Your task to perform on an android device: delete location history Image 0: 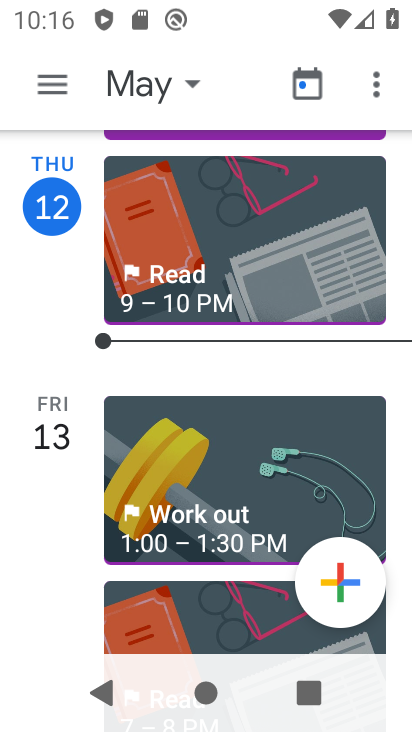
Step 0: press back button
Your task to perform on an android device: delete location history Image 1: 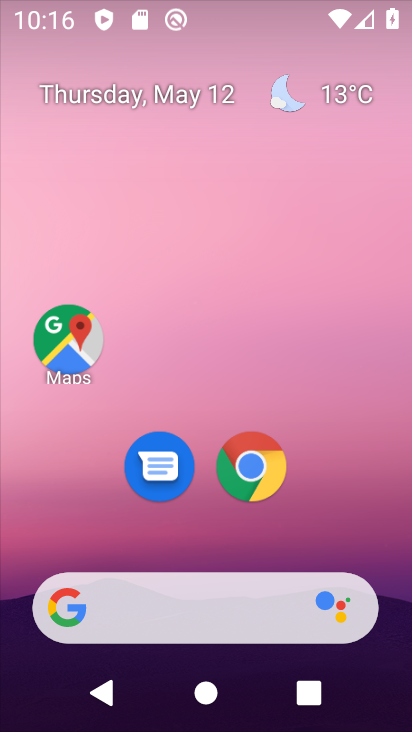
Step 1: click (41, 325)
Your task to perform on an android device: delete location history Image 2: 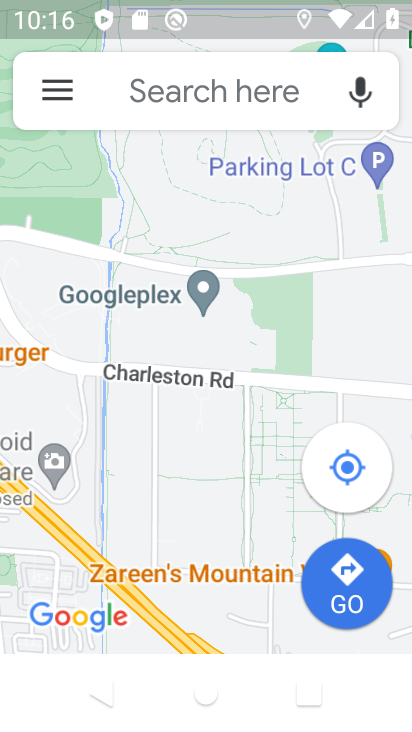
Step 2: click (49, 83)
Your task to perform on an android device: delete location history Image 3: 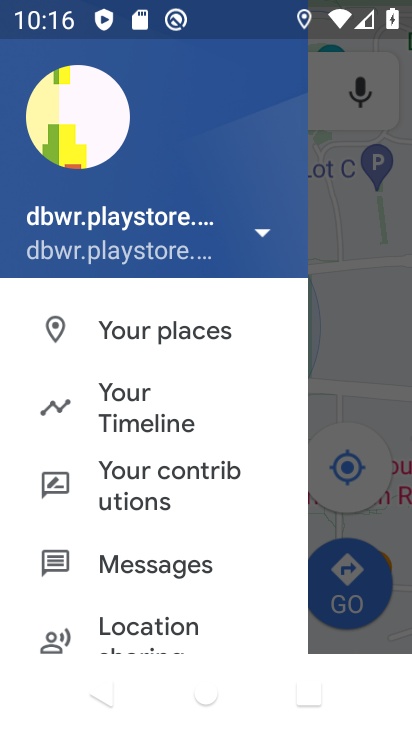
Step 3: click (139, 404)
Your task to perform on an android device: delete location history Image 4: 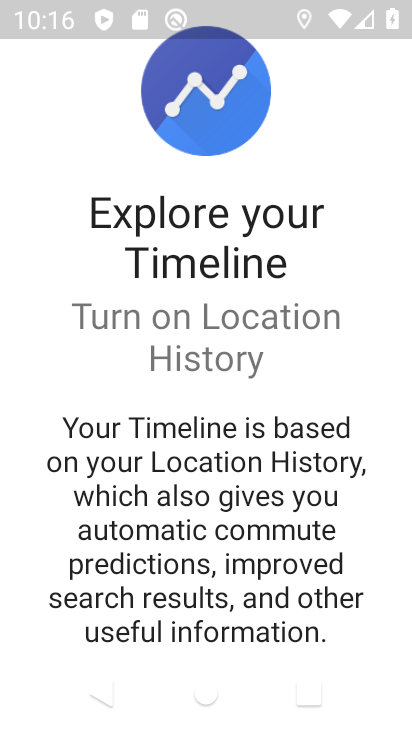
Step 4: drag from (202, 563) to (326, 54)
Your task to perform on an android device: delete location history Image 5: 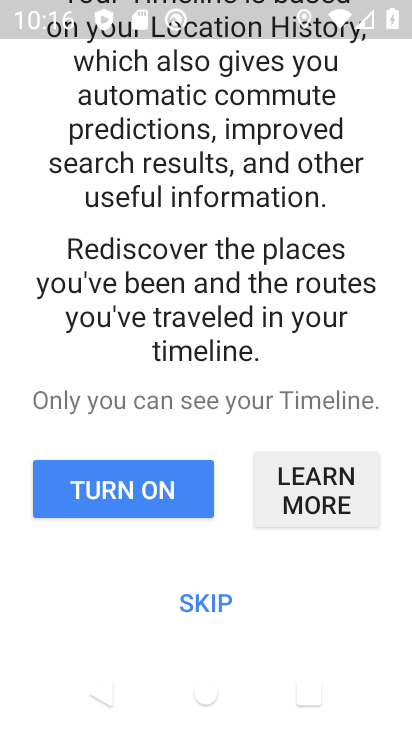
Step 5: click (192, 618)
Your task to perform on an android device: delete location history Image 6: 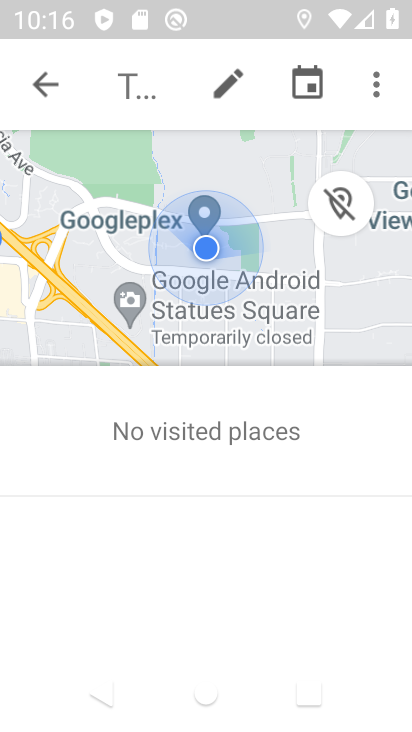
Step 6: click (376, 90)
Your task to perform on an android device: delete location history Image 7: 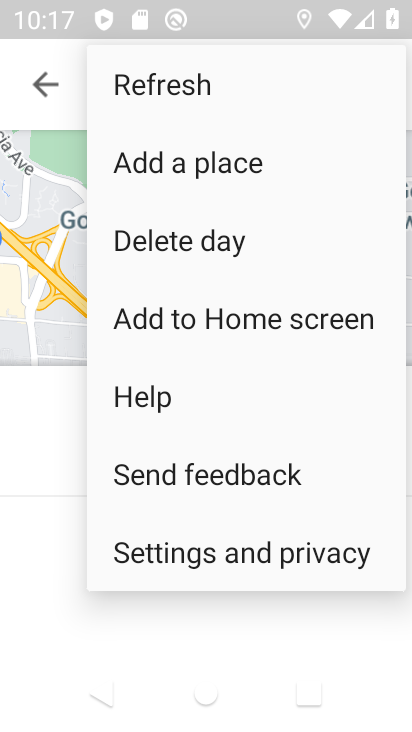
Step 7: click (240, 559)
Your task to perform on an android device: delete location history Image 8: 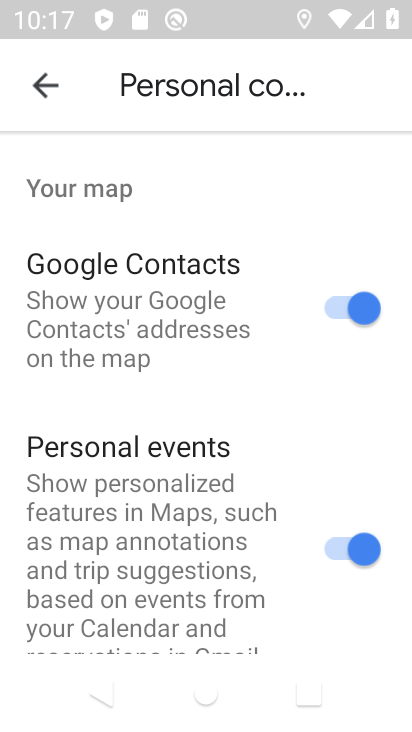
Step 8: drag from (194, 561) to (258, 64)
Your task to perform on an android device: delete location history Image 9: 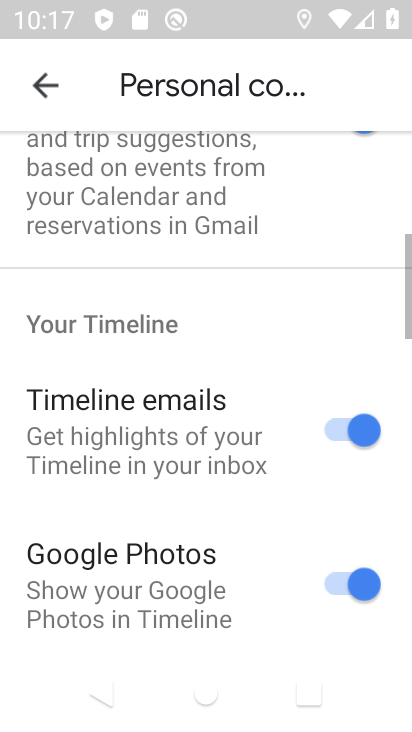
Step 9: drag from (209, 499) to (209, 86)
Your task to perform on an android device: delete location history Image 10: 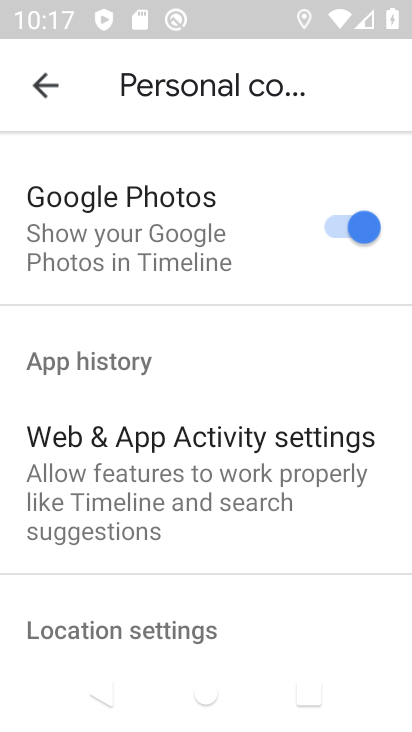
Step 10: drag from (179, 519) to (277, 36)
Your task to perform on an android device: delete location history Image 11: 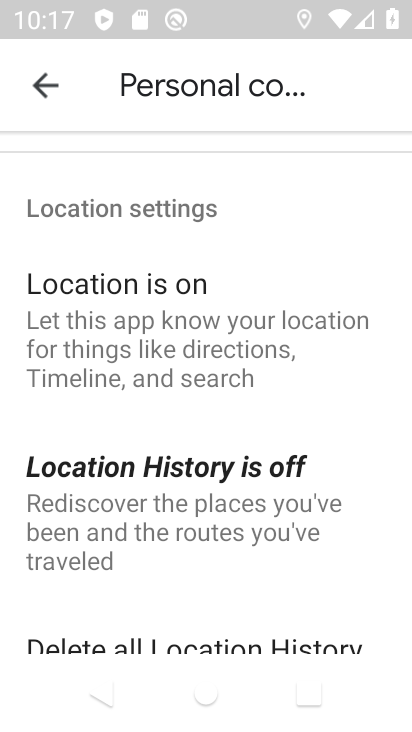
Step 11: drag from (208, 530) to (271, 123)
Your task to perform on an android device: delete location history Image 12: 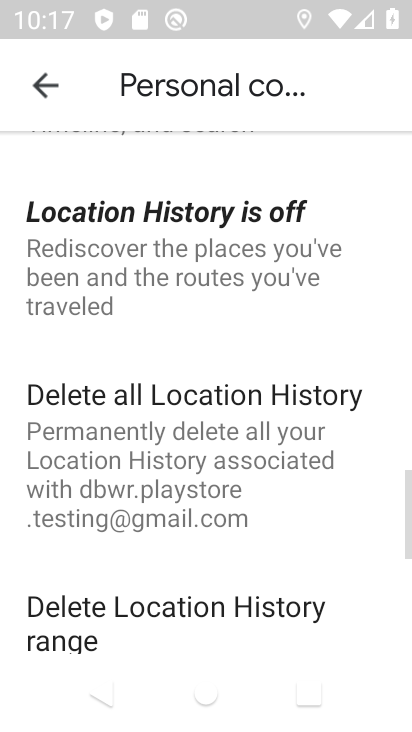
Step 12: click (184, 443)
Your task to perform on an android device: delete location history Image 13: 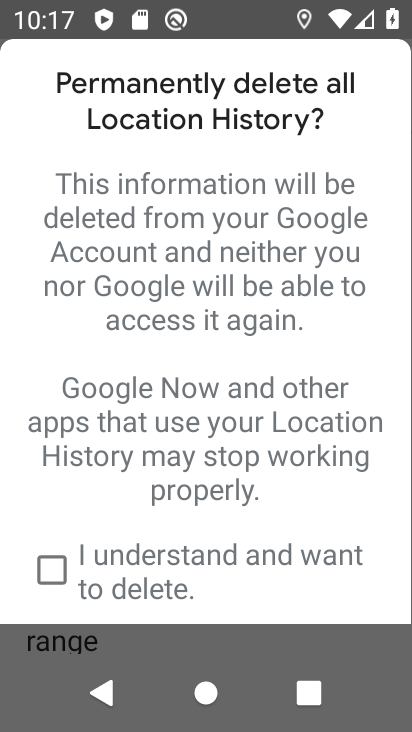
Step 13: click (52, 569)
Your task to perform on an android device: delete location history Image 14: 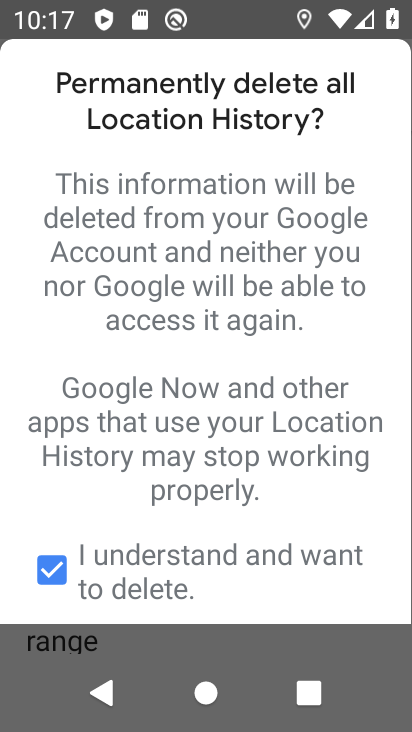
Step 14: task complete